Your task to perform on an android device: visit the assistant section in the google photos Image 0: 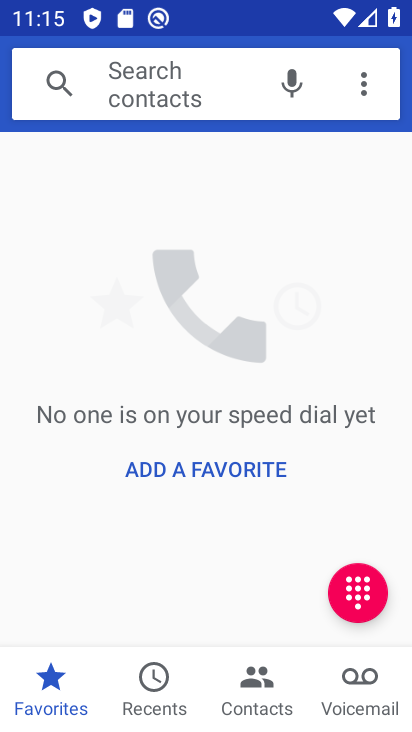
Step 0: press back button
Your task to perform on an android device: visit the assistant section in the google photos Image 1: 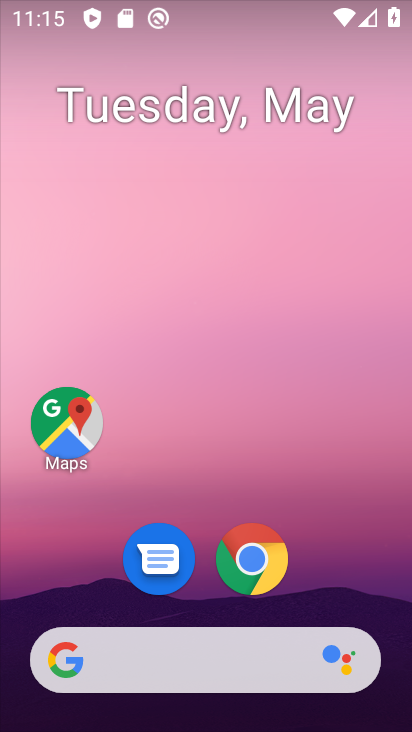
Step 1: drag from (126, 641) to (216, 226)
Your task to perform on an android device: visit the assistant section in the google photos Image 2: 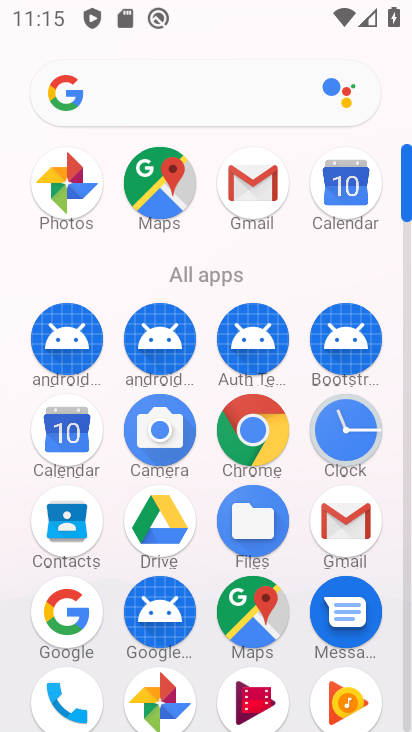
Step 2: click (155, 685)
Your task to perform on an android device: visit the assistant section in the google photos Image 3: 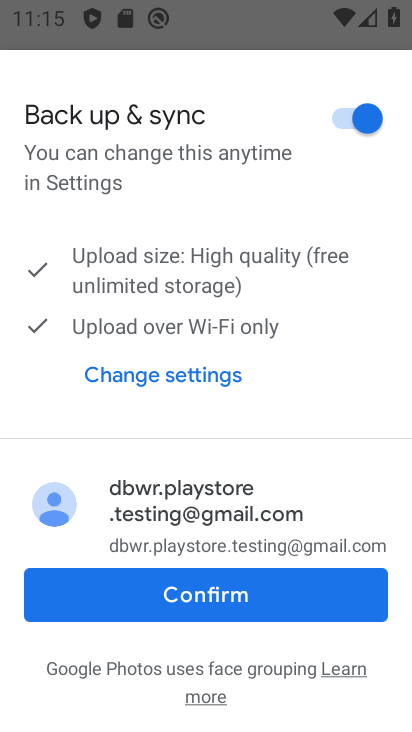
Step 3: click (272, 592)
Your task to perform on an android device: visit the assistant section in the google photos Image 4: 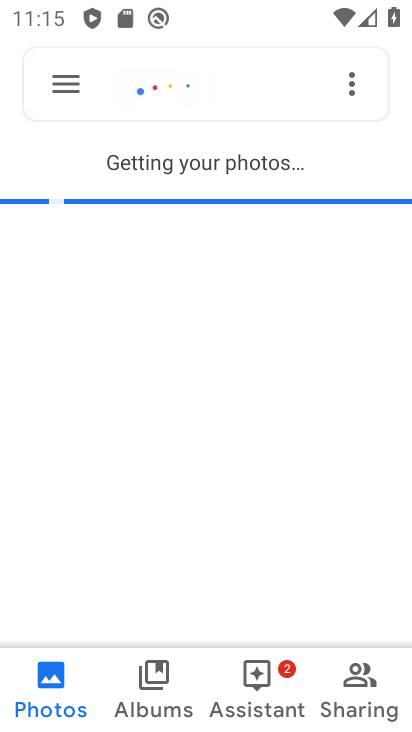
Step 4: click (302, 692)
Your task to perform on an android device: visit the assistant section in the google photos Image 5: 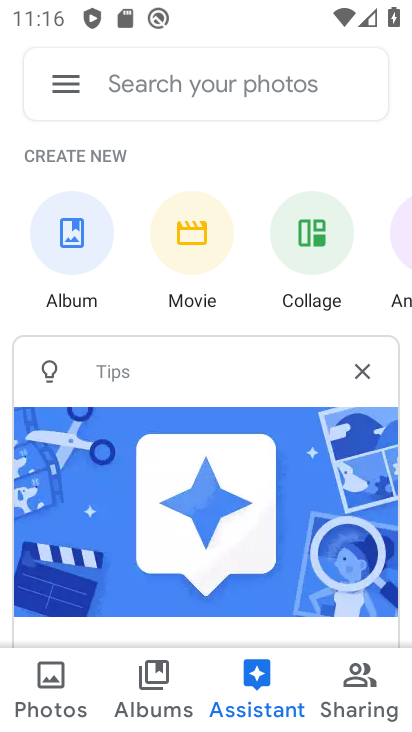
Step 5: task complete